Your task to perform on an android device: Open the web browser Image 0: 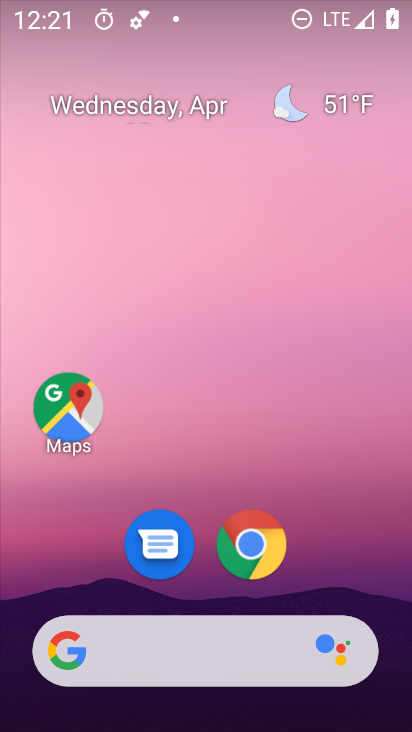
Step 0: drag from (351, 566) to (375, 165)
Your task to perform on an android device: Open the web browser Image 1: 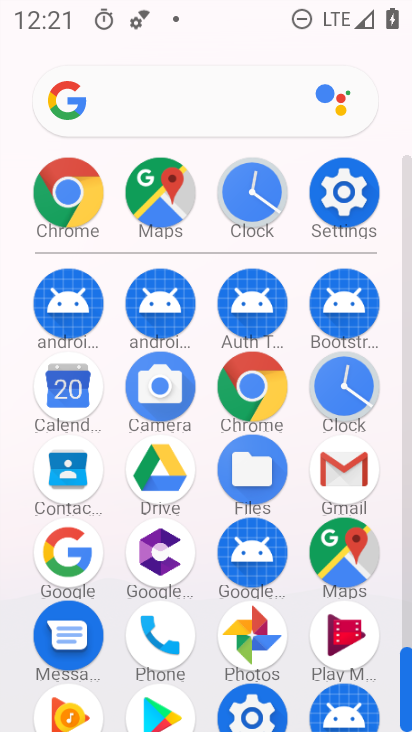
Step 1: click (258, 390)
Your task to perform on an android device: Open the web browser Image 2: 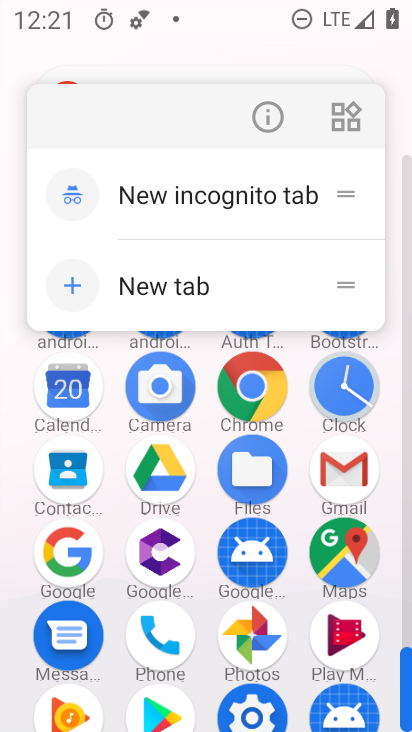
Step 2: click (258, 390)
Your task to perform on an android device: Open the web browser Image 3: 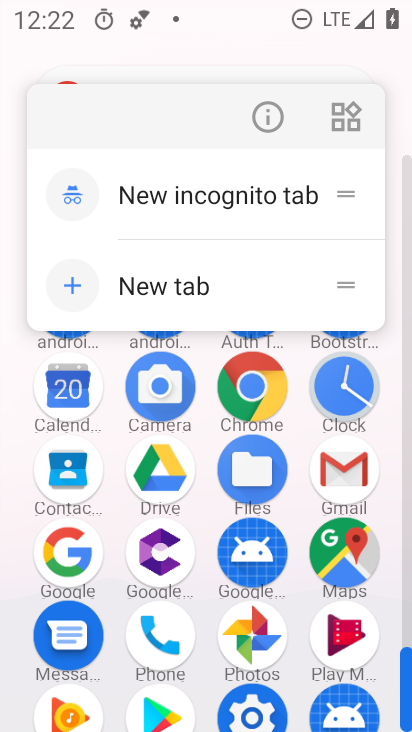
Step 3: click (258, 390)
Your task to perform on an android device: Open the web browser Image 4: 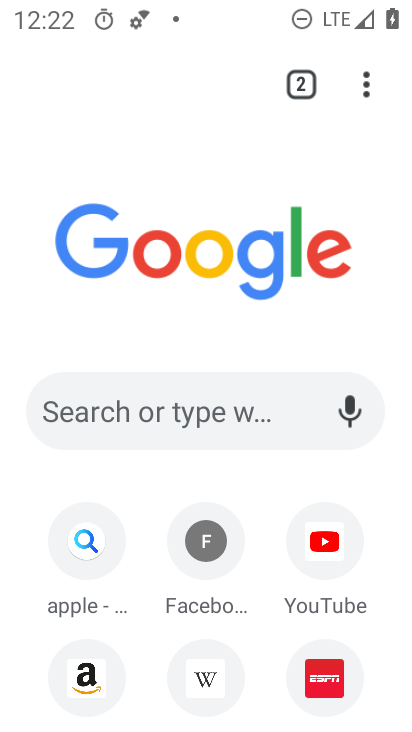
Step 4: task complete